Your task to perform on an android device: Search for vegetarian restaurants on Maps Image 0: 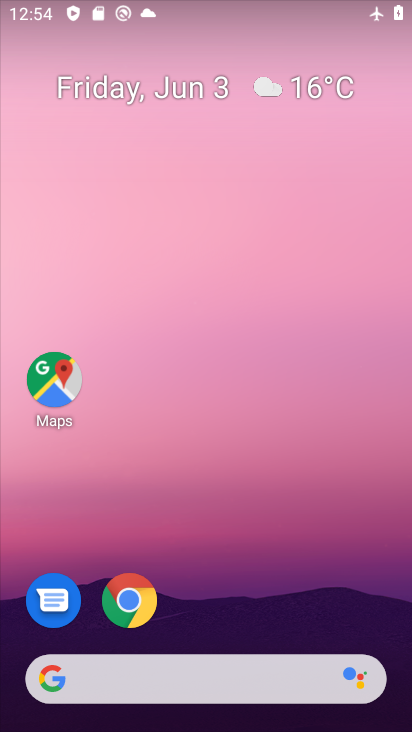
Step 0: drag from (224, 638) to (185, 197)
Your task to perform on an android device: Search for vegetarian restaurants on Maps Image 1: 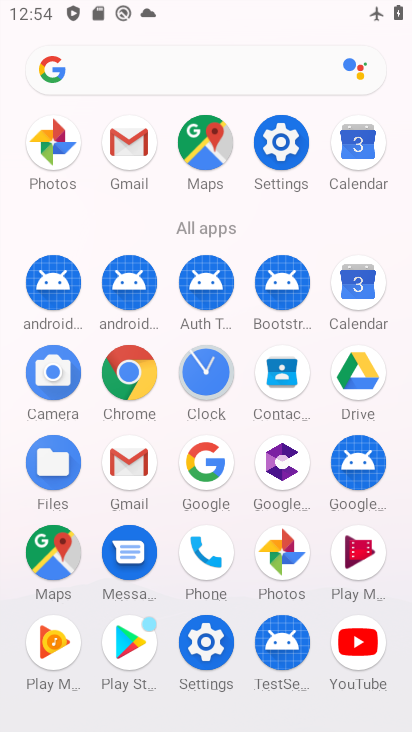
Step 1: click (195, 142)
Your task to perform on an android device: Search for vegetarian restaurants on Maps Image 2: 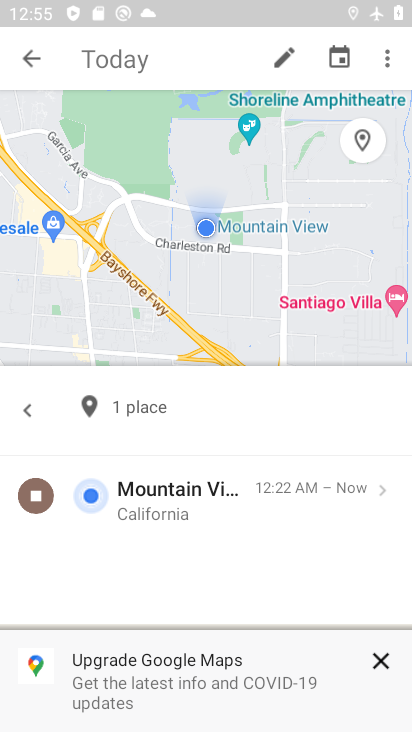
Step 2: click (26, 64)
Your task to perform on an android device: Search for vegetarian restaurants on Maps Image 3: 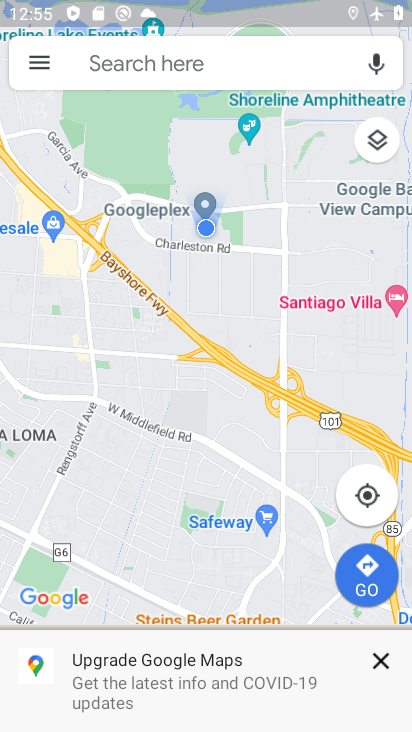
Step 3: click (143, 69)
Your task to perform on an android device: Search for vegetarian restaurants on Maps Image 4: 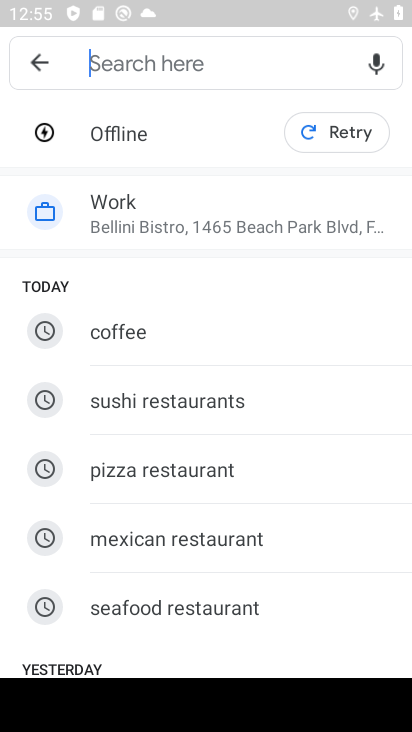
Step 4: drag from (140, 609) to (117, 426)
Your task to perform on an android device: Search for vegetarian restaurants on Maps Image 5: 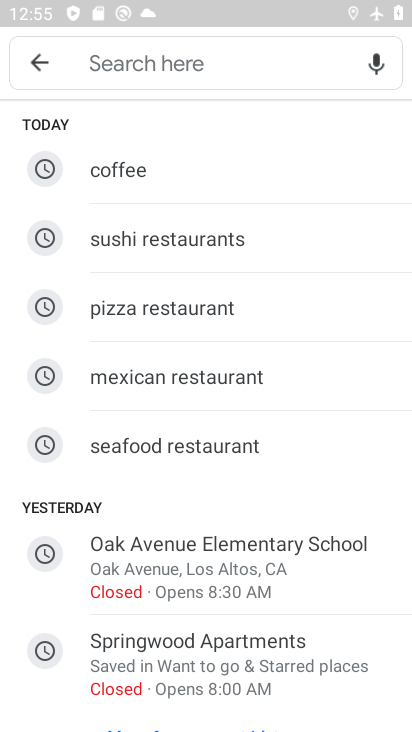
Step 5: drag from (163, 504) to (176, 359)
Your task to perform on an android device: Search for vegetarian restaurants on Maps Image 6: 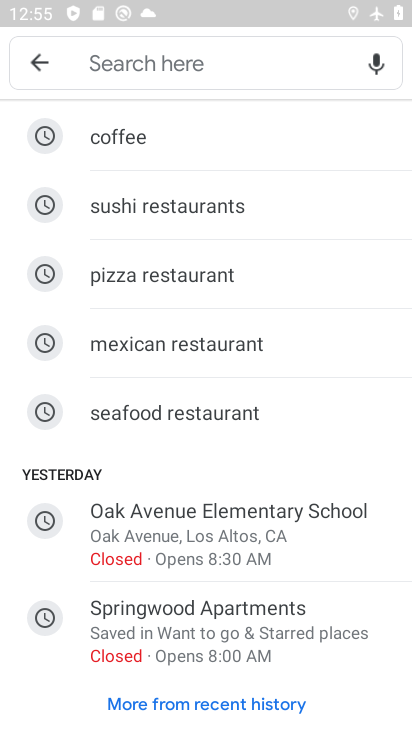
Step 6: click (141, 52)
Your task to perform on an android device: Search for vegetarian restaurants on Maps Image 7: 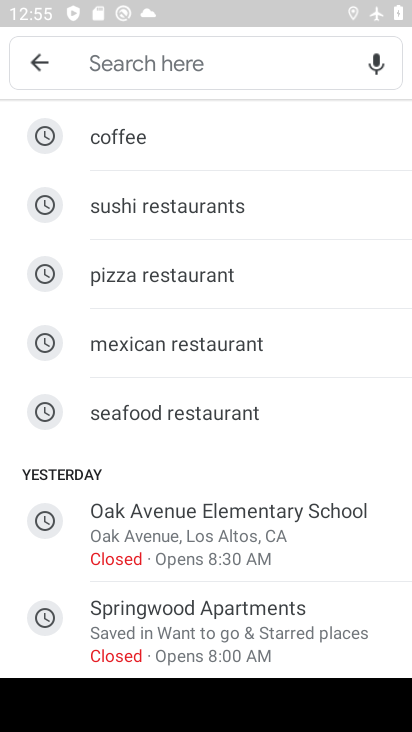
Step 7: type "vegetarian restaurants"
Your task to perform on an android device: Search for vegetarian restaurants on Maps Image 8: 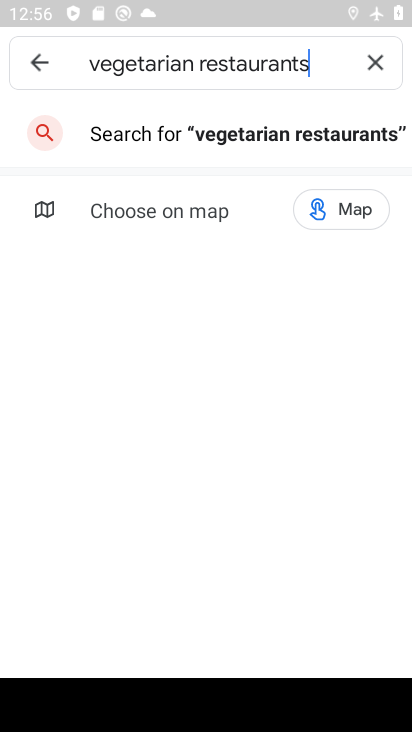
Step 8: task complete